Your task to perform on an android device: Open the stopwatch Image 0: 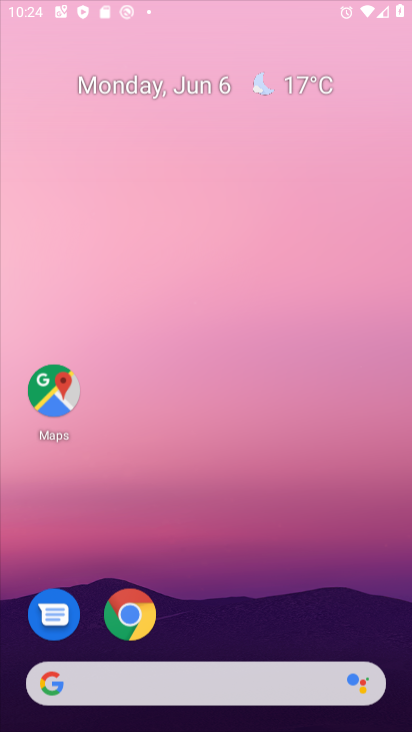
Step 0: press home button
Your task to perform on an android device: Open the stopwatch Image 1: 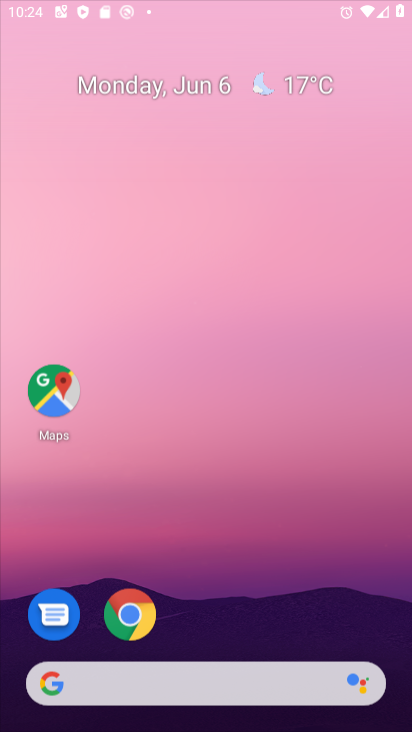
Step 1: drag from (210, 379) to (221, 31)
Your task to perform on an android device: Open the stopwatch Image 2: 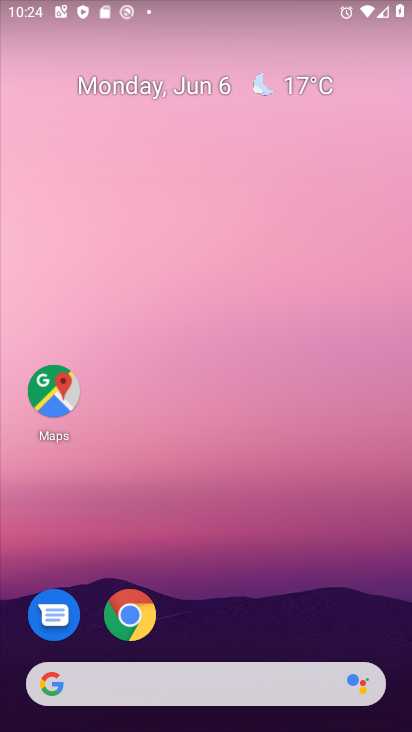
Step 2: drag from (205, 637) to (203, 51)
Your task to perform on an android device: Open the stopwatch Image 3: 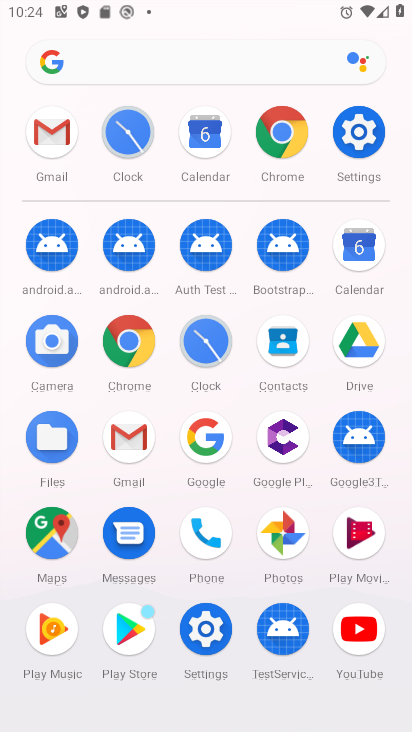
Step 3: click (205, 332)
Your task to perform on an android device: Open the stopwatch Image 4: 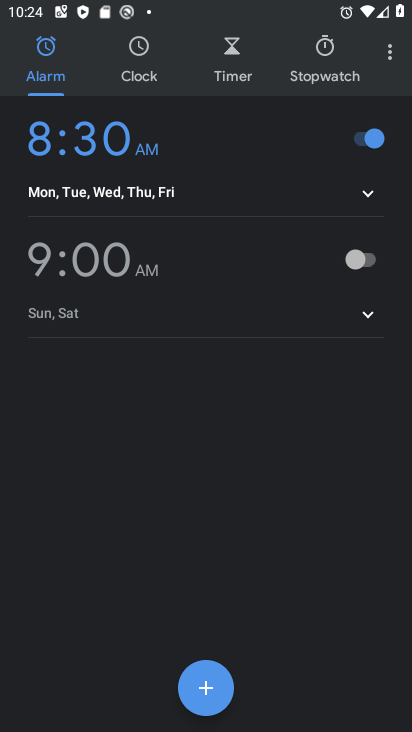
Step 4: click (317, 48)
Your task to perform on an android device: Open the stopwatch Image 5: 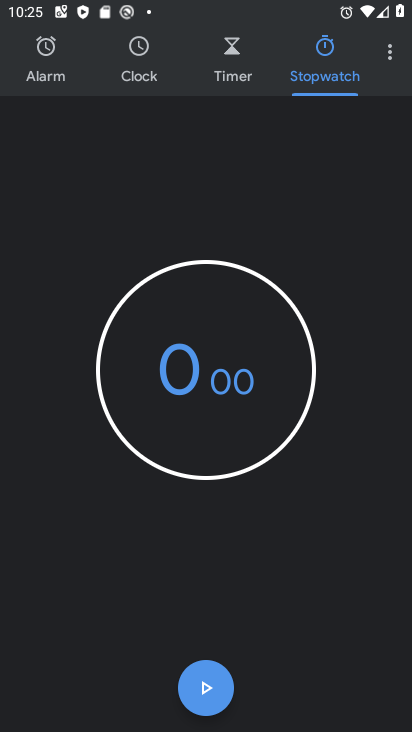
Step 5: click (203, 683)
Your task to perform on an android device: Open the stopwatch Image 6: 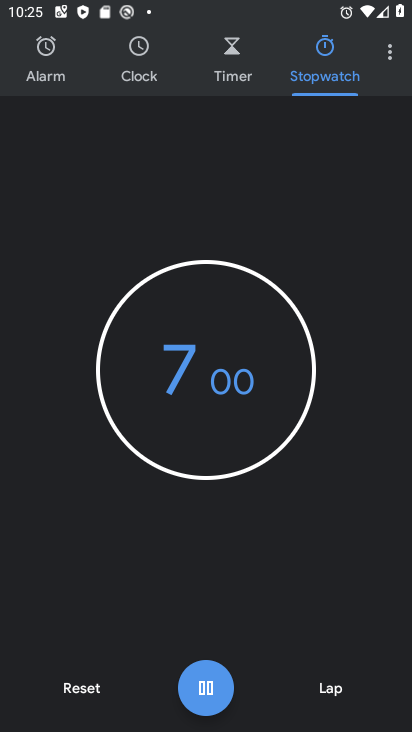
Step 6: task complete